Your task to perform on an android device: delete browsing data in the chrome app Image 0: 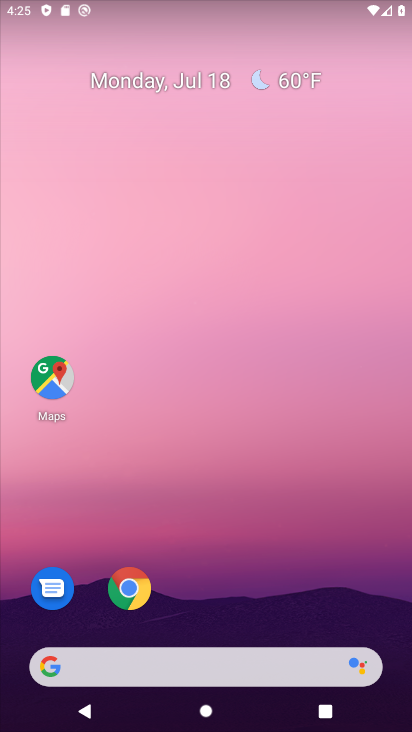
Step 0: press home button
Your task to perform on an android device: delete browsing data in the chrome app Image 1: 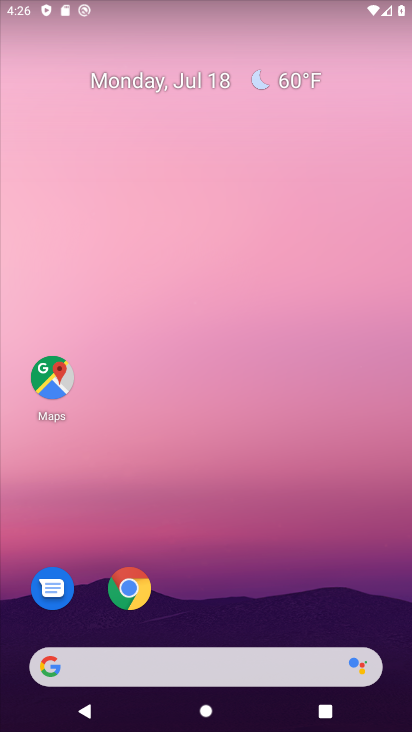
Step 1: click (135, 594)
Your task to perform on an android device: delete browsing data in the chrome app Image 2: 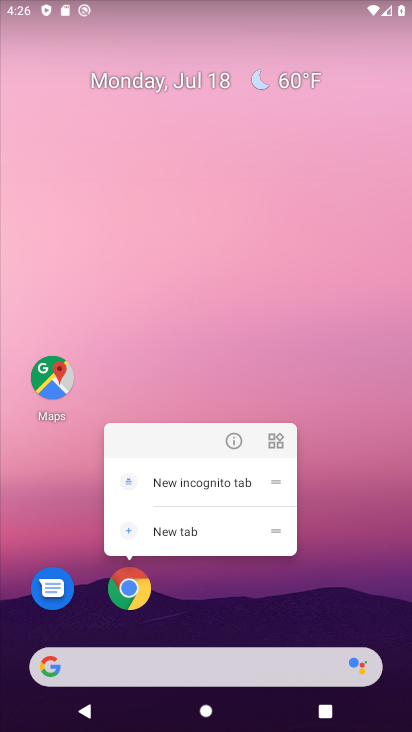
Step 2: click (128, 586)
Your task to perform on an android device: delete browsing data in the chrome app Image 3: 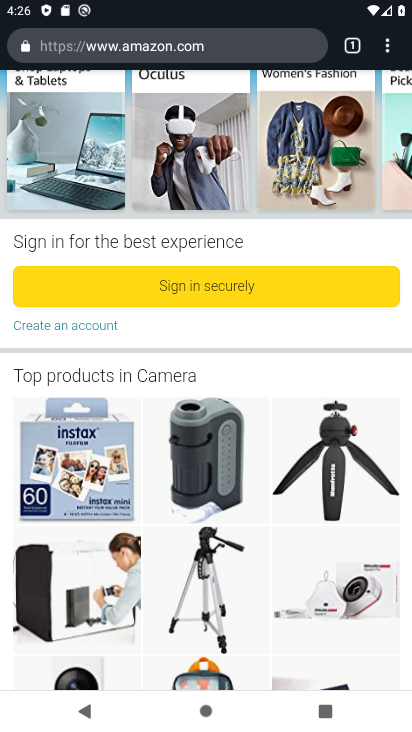
Step 3: click (381, 52)
Your task to perform on an android device: delete browsing data in the chrome app Image 4: 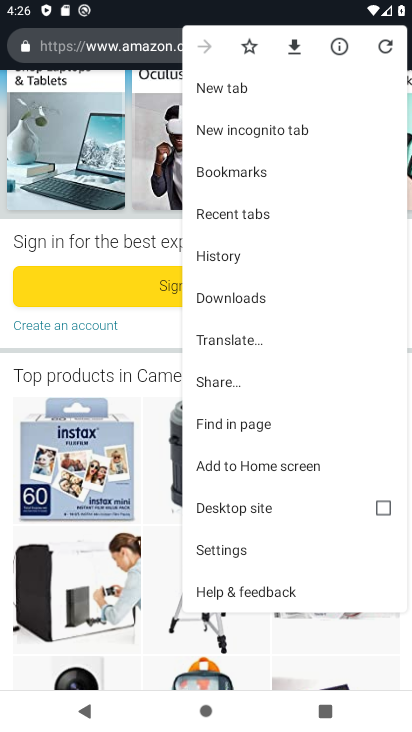
Step 4: click (250, 255)
Your task to perform on an android device: delete browsing data in the chrome app Image 5: 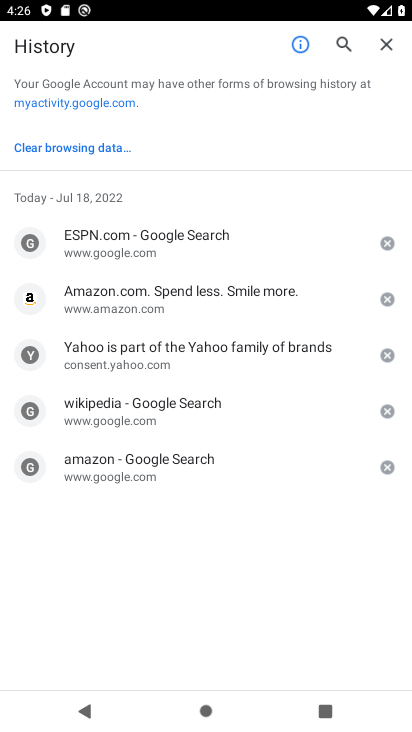
Step 5: click (97, 152)
Your task to perform on an android device: delete browsing data in the chrome app Image 6: 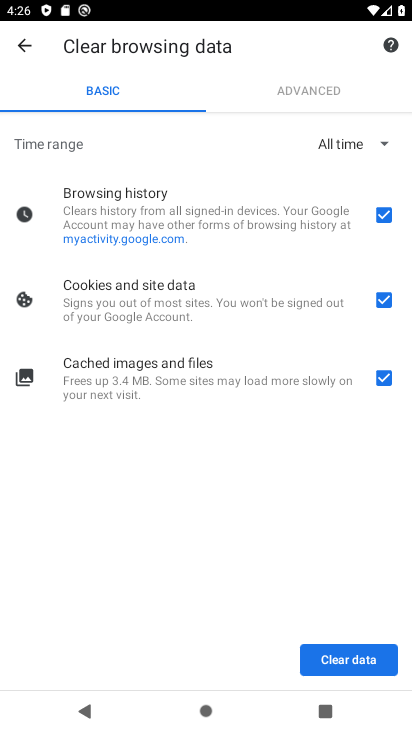
Step 6: click (383, 305)
Your task to perform on an android device: delete browsing data in the chrome app Image 7: 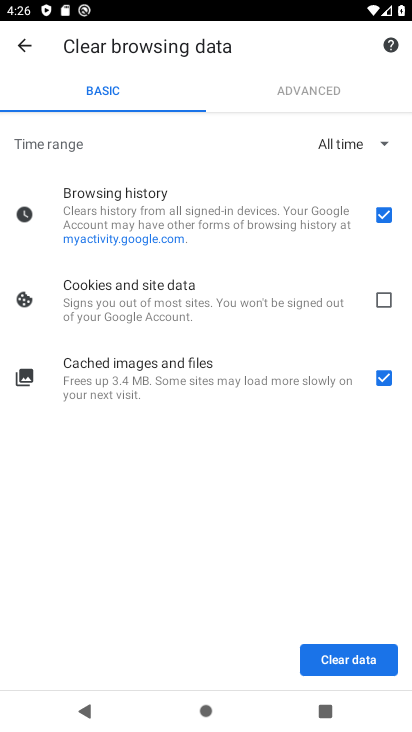
Step 7: click (387, 373)
Your task to perform on an android device: delete browsing data in the chrome app Image 8: 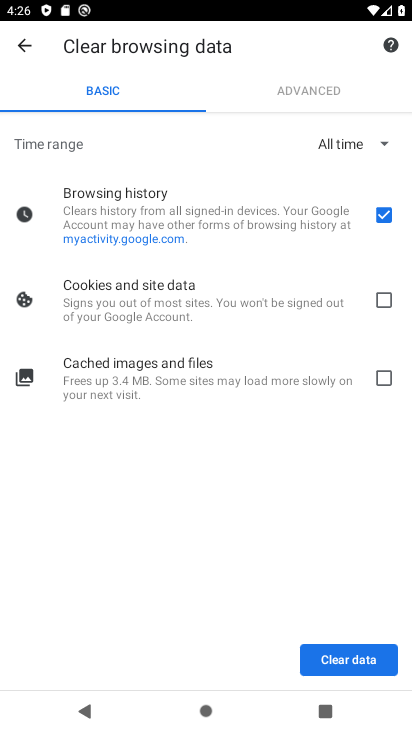
Step 8: click (359, 654)
Your task to perform on an android device: delete browsing data in the chrome app Image 9: 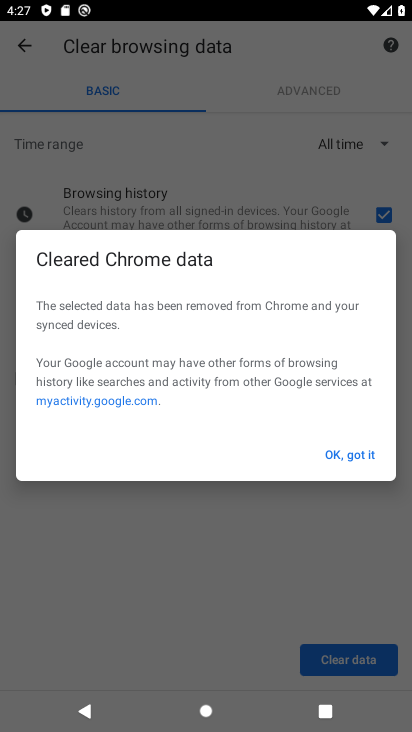
Step 9: click (331, 445)
Your task to perform on an android device: delete browsing data in the chrome app Image 10: 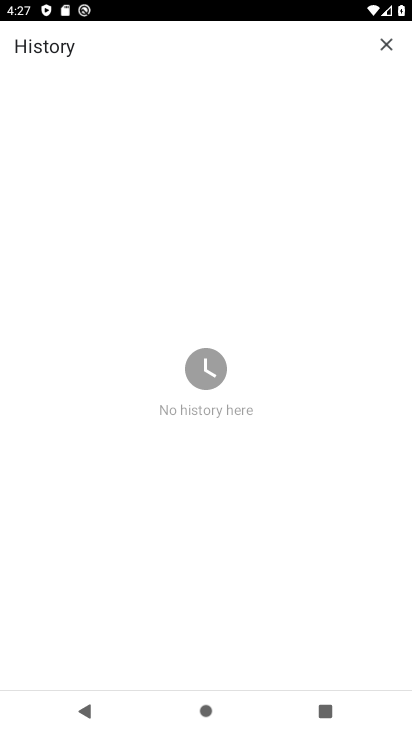
Step 10: task complete